Your task to perform on an android device: turn on priority inbox in the gmail app Image 0: 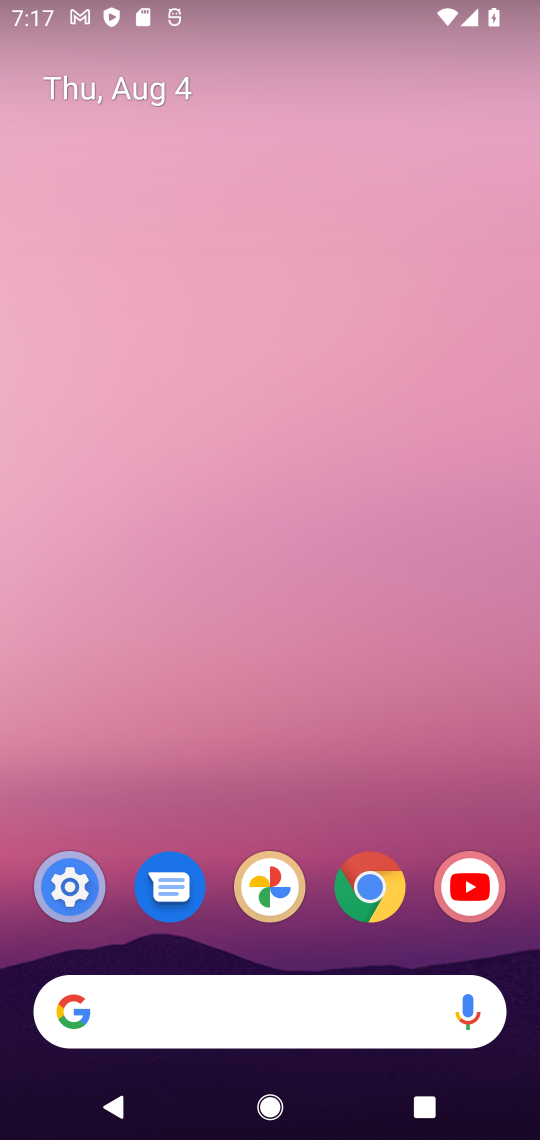
Step 0: drag from (163, 955) to (199, 356)
Your task to perform on an android device: turn on priority inbox in the gmail app Image 1: 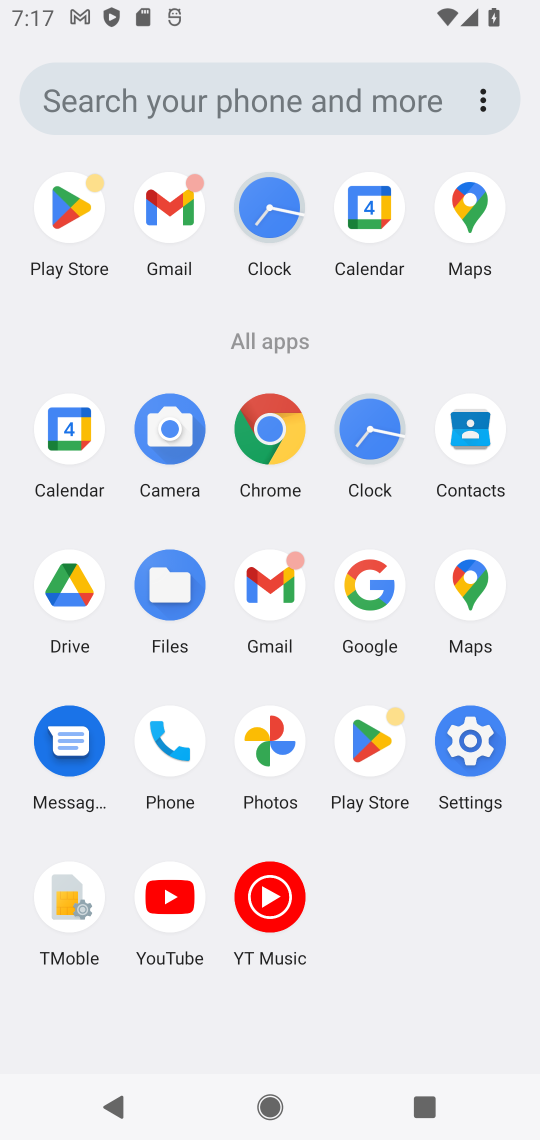
Step 1: click (168, 216)
Your task to perform on an android device: turn on priority inbox in the gmail app Image 2: 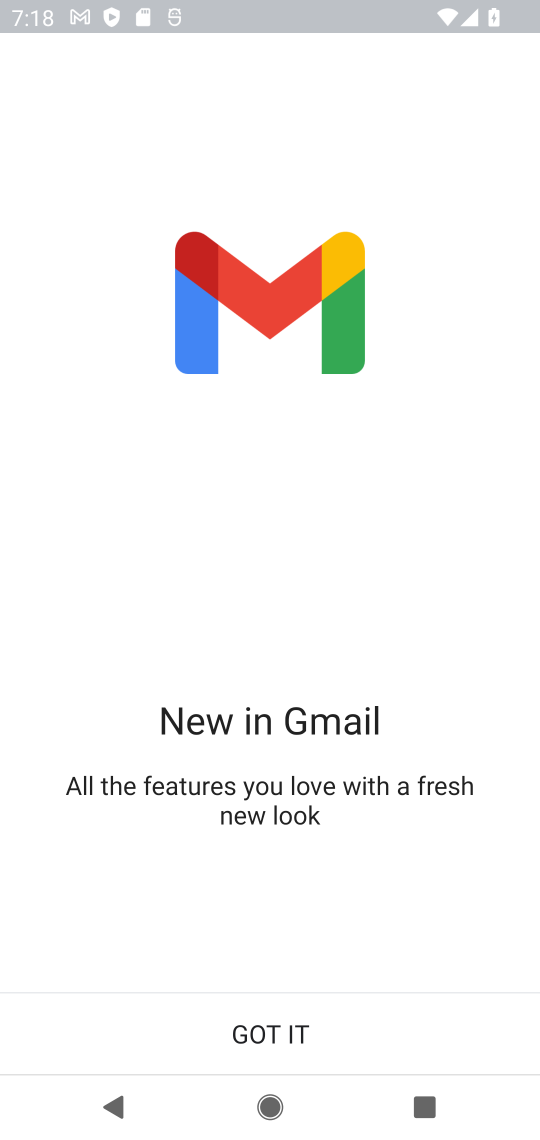
Step 2: click (350, 1025)
Your task to perform on an android device: turn on priority inbox in the gmail app Image 3: 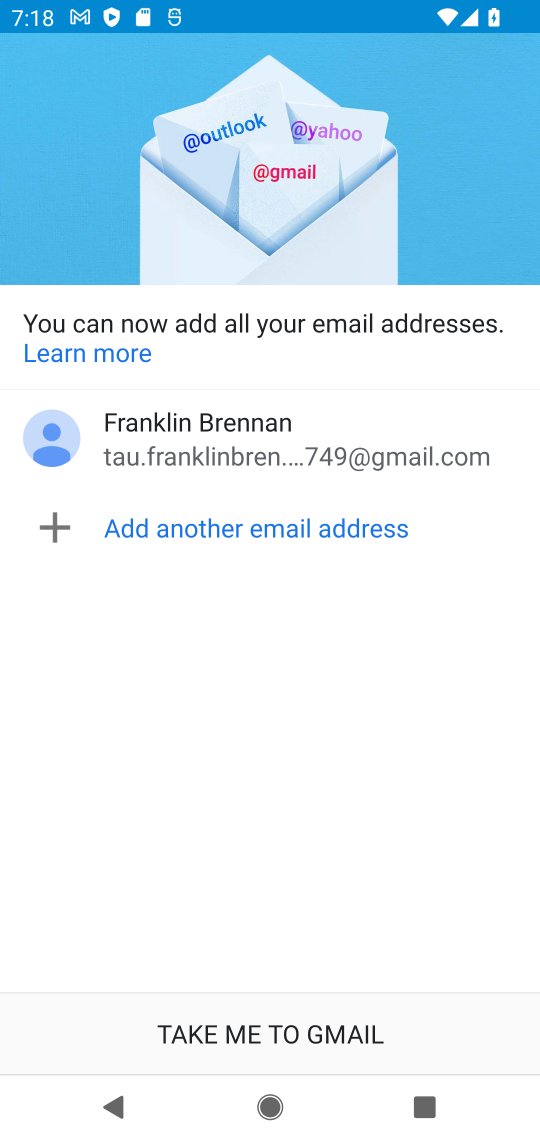
Step 3: click (220, 1052)
Your task to perform on an android device: turn on priority inbox in the gmail app Image 4: 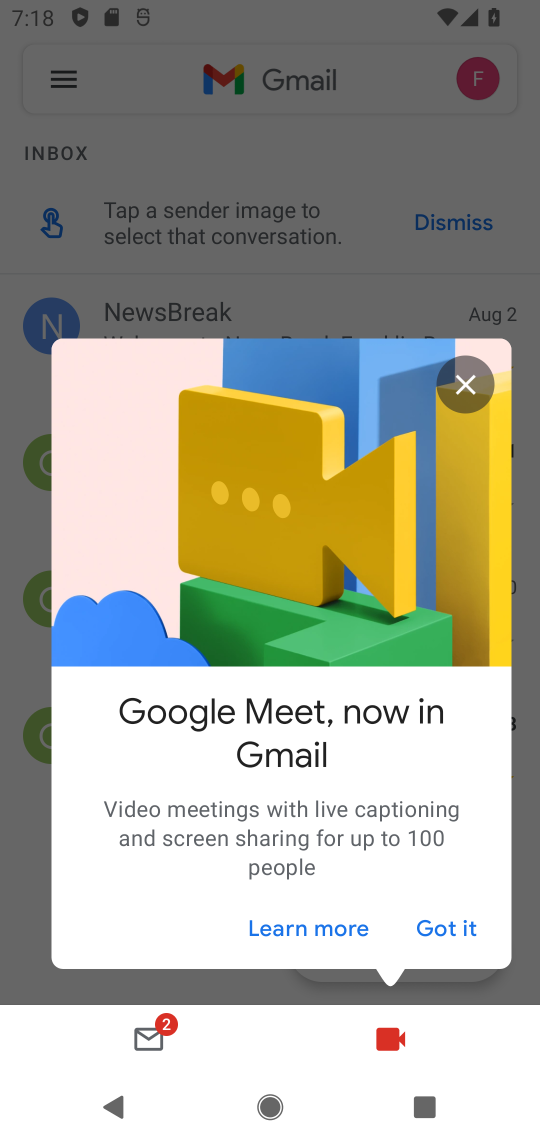
Step 4: click (426, 922)
Your task to perform on an android device: turn on priority inbox in the gmail app Image 5: 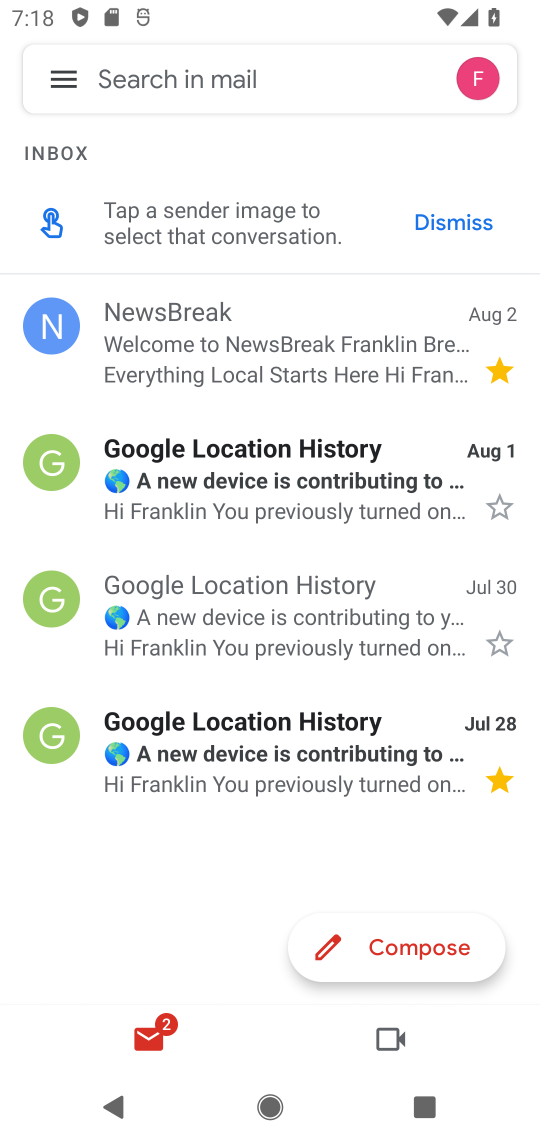
Step 5: click (57, 90)
Your task to perform on an android device: turn on priority inbox in the gmail app Image 6: 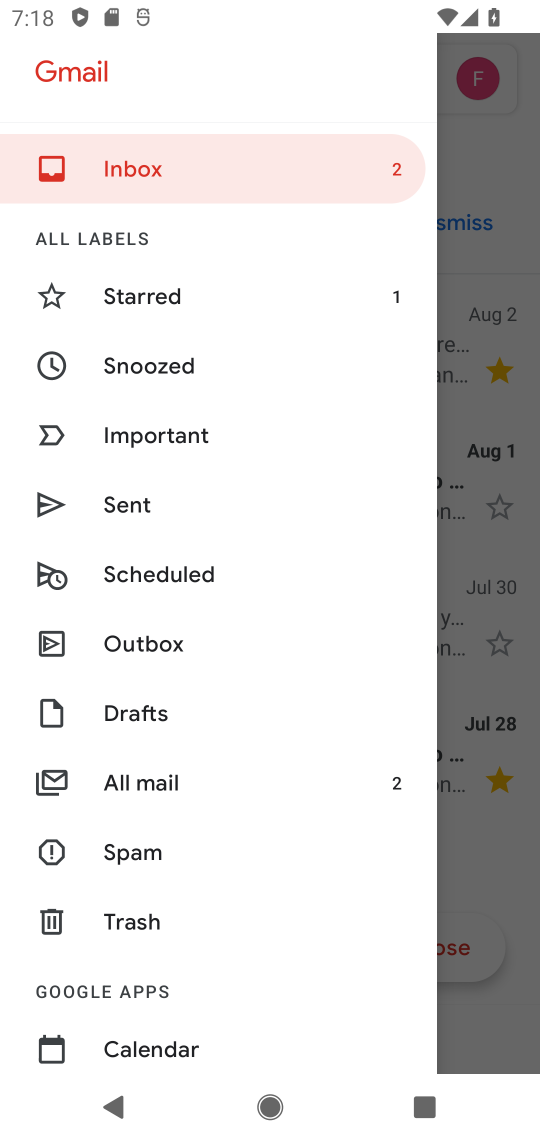
Step 6: drag from (128, 1041) to (189, 300)
Your task to perform on an android device: turn on priority inbox in the gmail app Image 7: 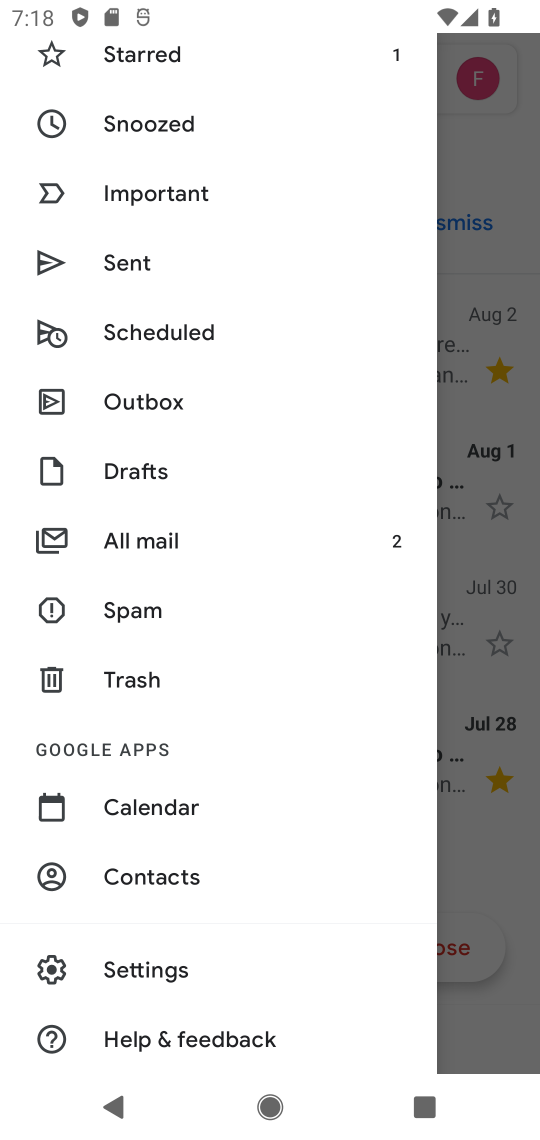
Step 7: click (134, 959)
Your task to perform on an android device: turn on priority inbox in the gmail app Image 8: 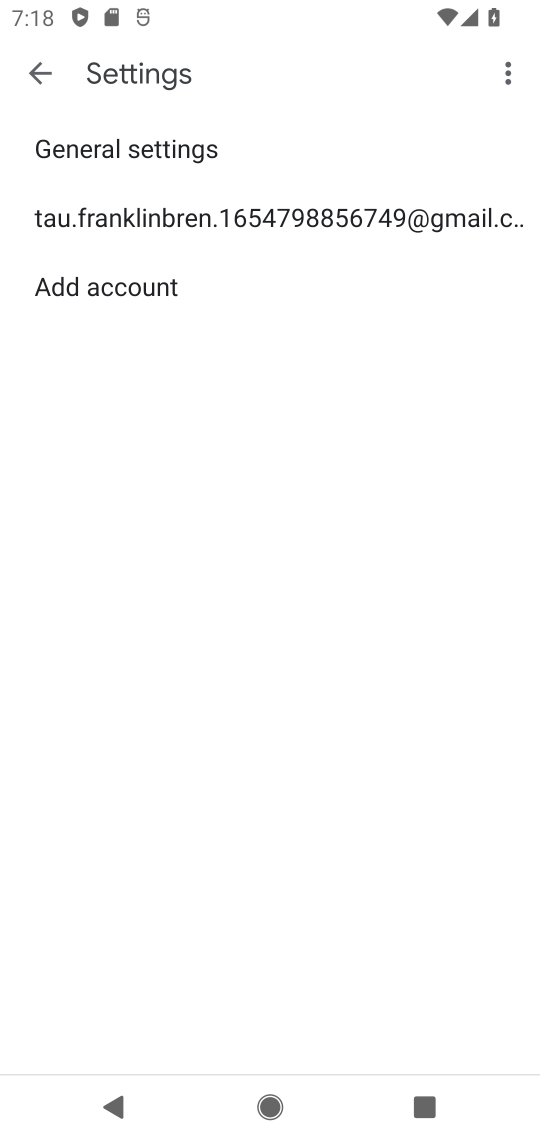
Step 8: click (180, 200)
Your task to perform on an android device: turn on priority inbox in the gmail app Image 9: 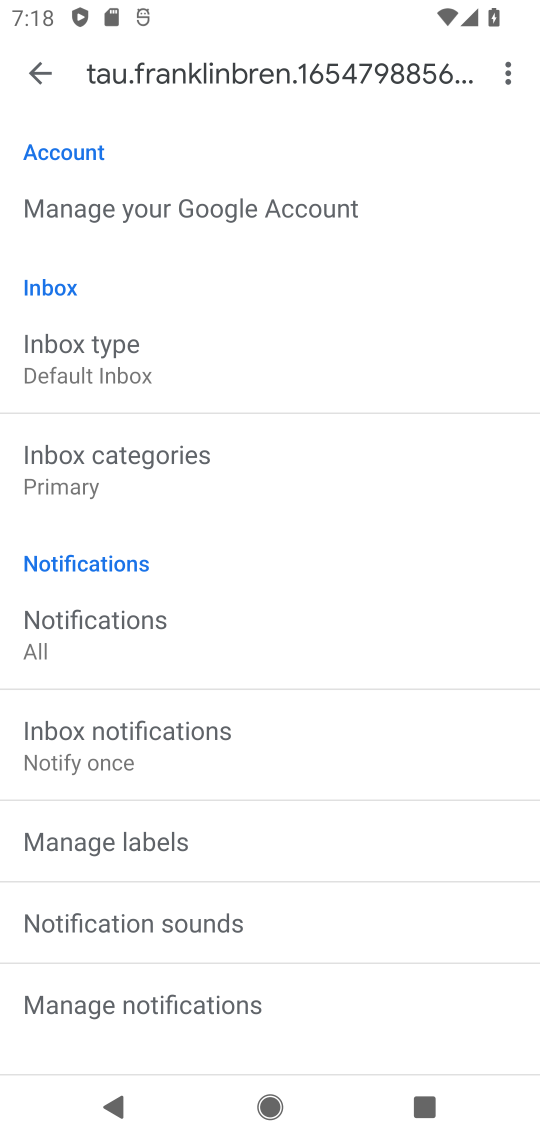
Step 9: click (110, 370)
Your task to perform on an android device: turn on priority inbox in the gmail app Image 10: 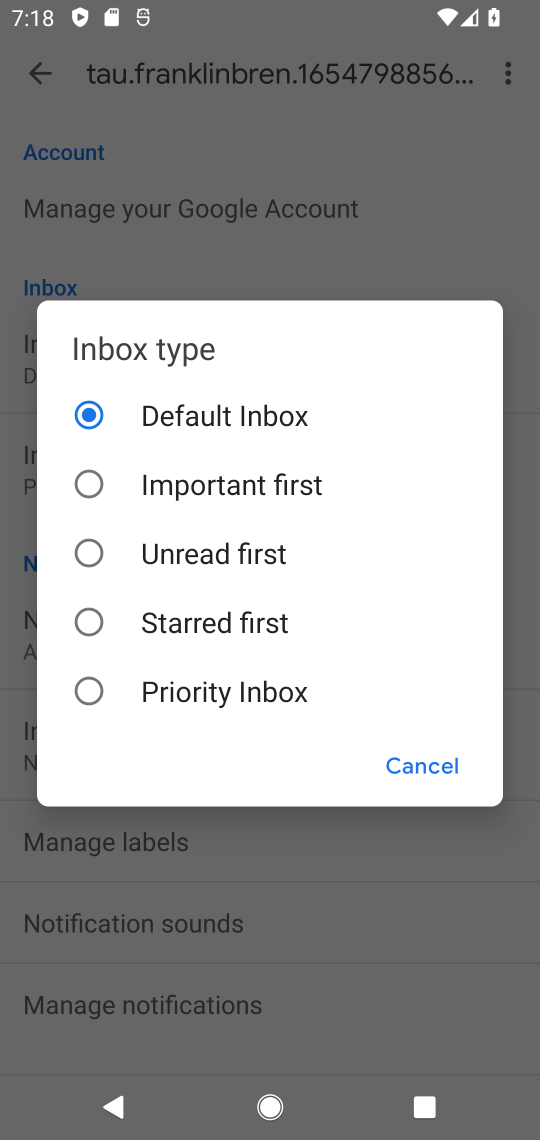
Step 10: click (157, 691)
Your task to perform on an android device: turn on priority inbox in the gmail app Image 11: 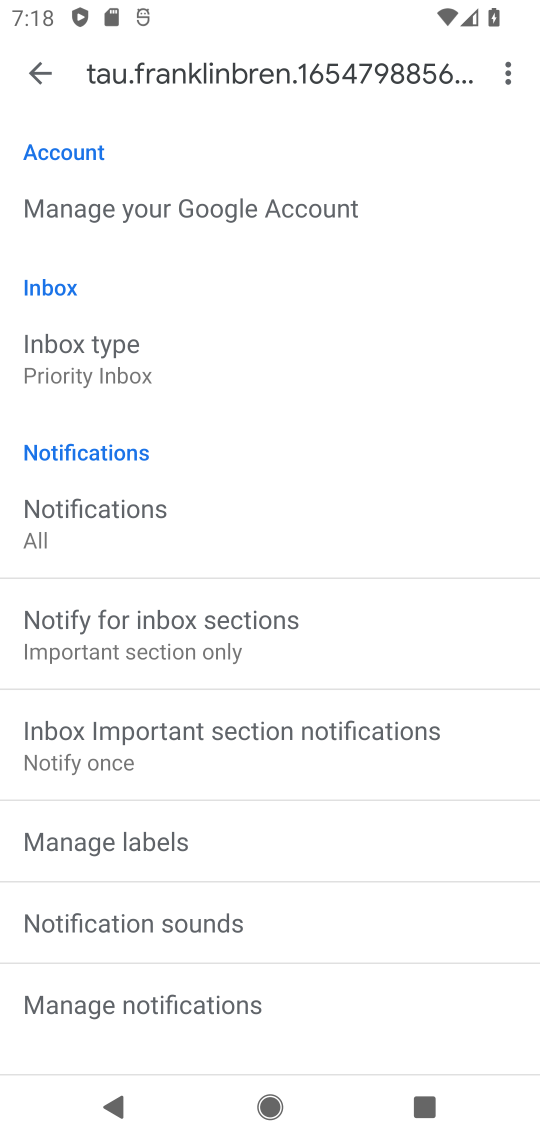
Step 11: task complete